Your task to perform on an android device: Go to Reddit.com Image 0: 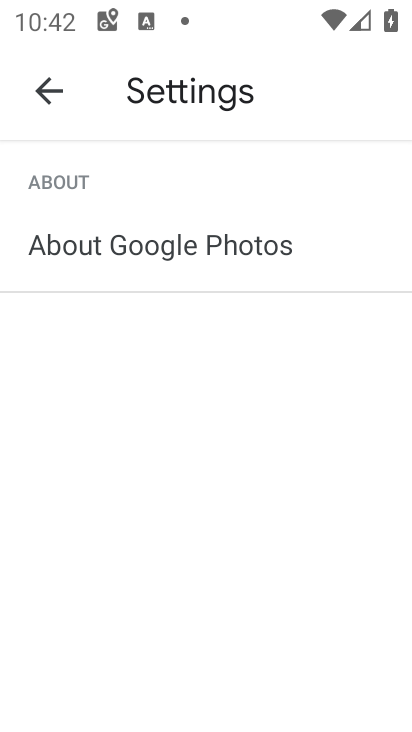
Step 0: press home button
Your task to perform on an android device: Go to Reddit.com Image 1: 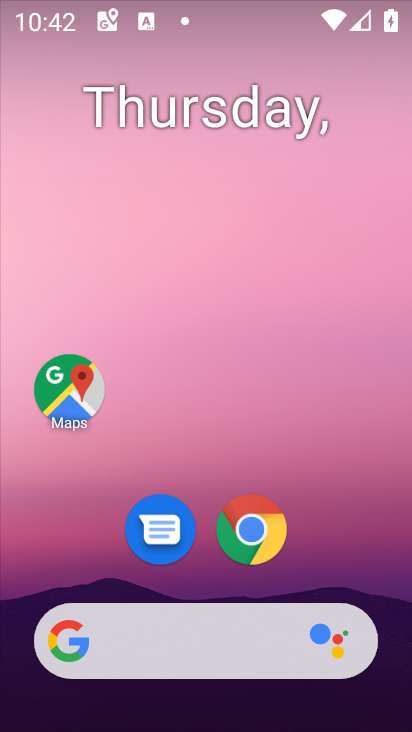
Step 1: click (264, 557)
Your task to perform on an android device: Go to Reddit.com Image 2: 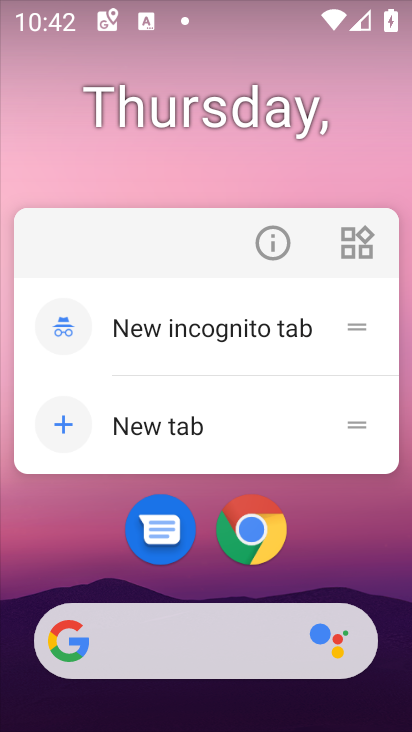
Step 2: click (265, 556)
Your task to perform on an android device: Go to Reddit.com Image 3: 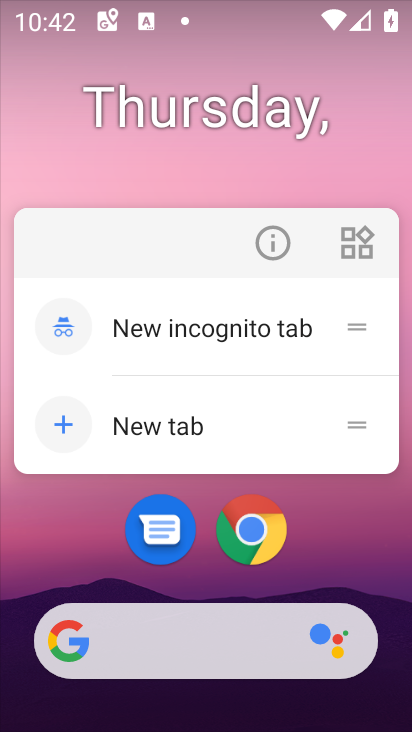
Step 3: click (266, 555)
Your task to perform on an android device: Go to Reddit.com Image 4: 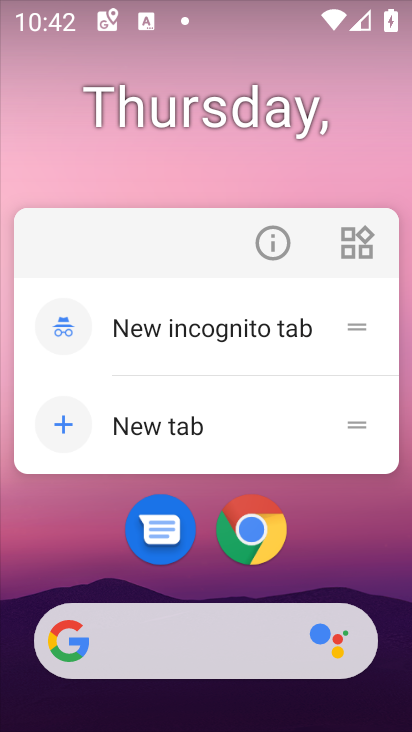
Step 4: click (250, 518)
Your task to perform on an android device: Go to Reddit.com Image 5: 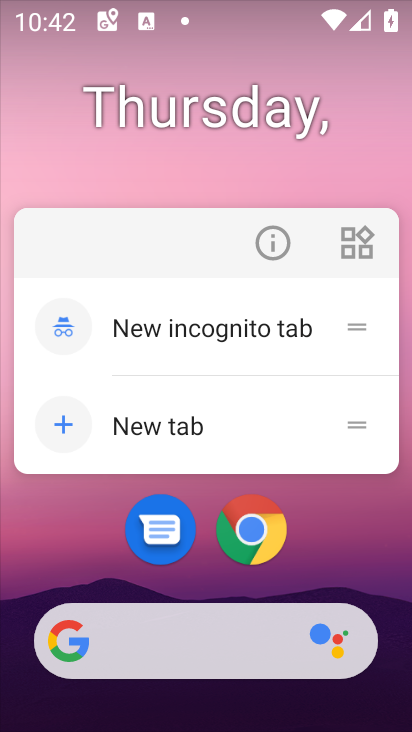
Step 5: click (257, 540)
Your task to perform on an android device: Go to Reddit.com Image 6: 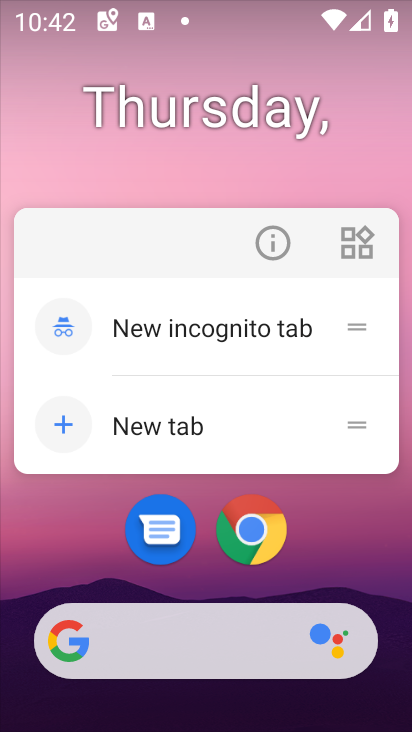
Step 6: click (257, 542)
Your task to perform on an android device: Go to Reddit.com Image 7: 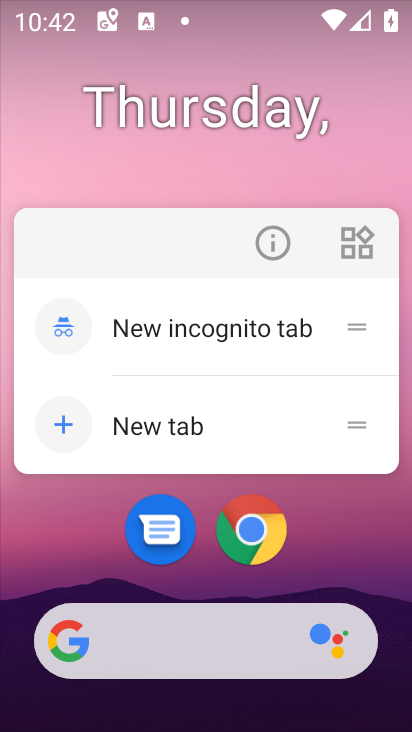
Step 7: click (264, 553)
Your task to perform on an android device: Go to Reddit.com Image 8: 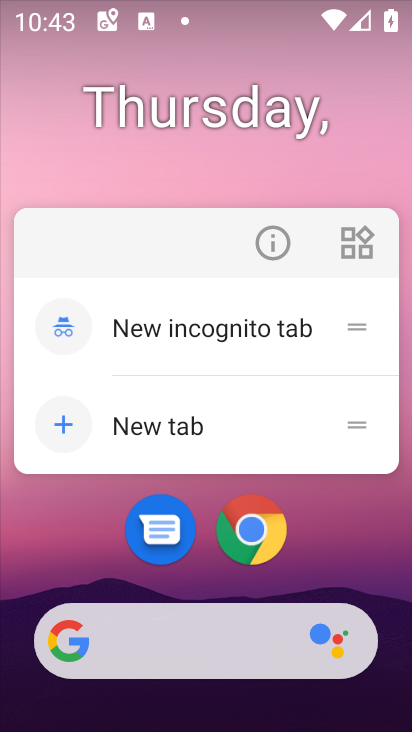
Step 8: click (261, 539)
Your task to perform on an android device: Go to Reddit.com Image 9: 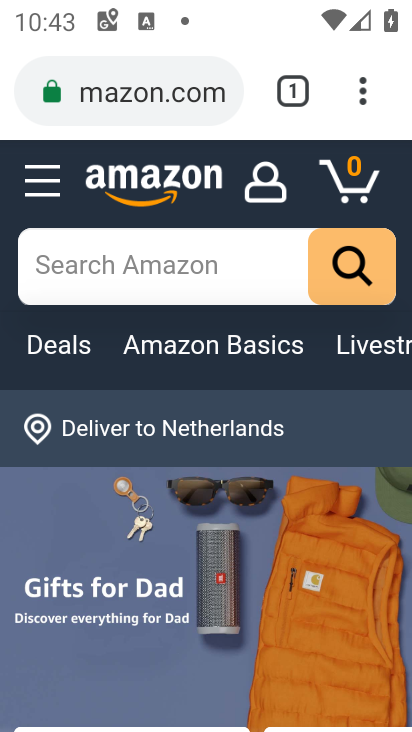
Step 9: click (191, 105)
Your task to perform on an android device: Go to Reddit.com Image 10: 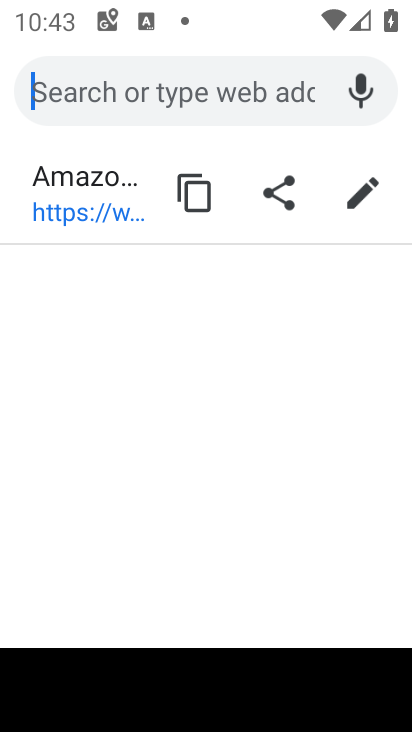
Step 10: type ""
Your task to perform on an android device: Go to Reddit.com Image 11: 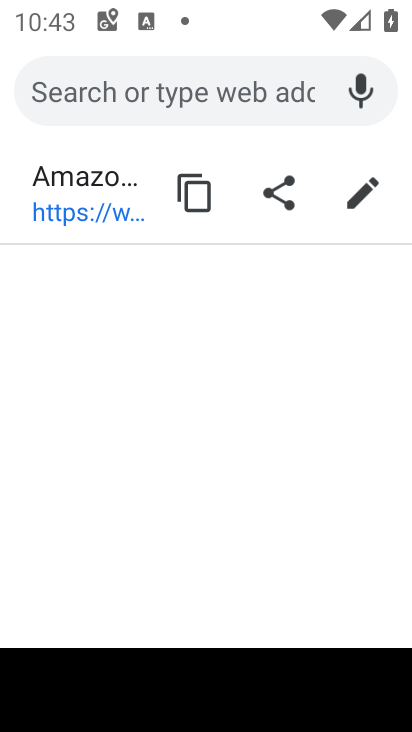
Step 11: type "reddit"
Your task to perform on an android device: Go to Reddit.com Image 12: 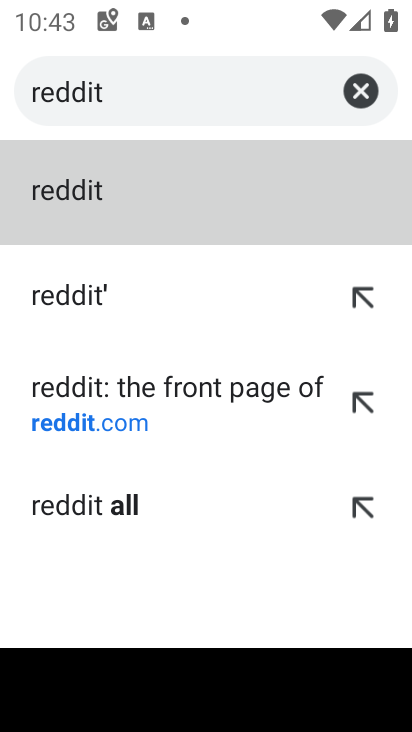
Step 12: click (160, 436)
Your task to perform on an android device: Go to Reddit.com Image 13: 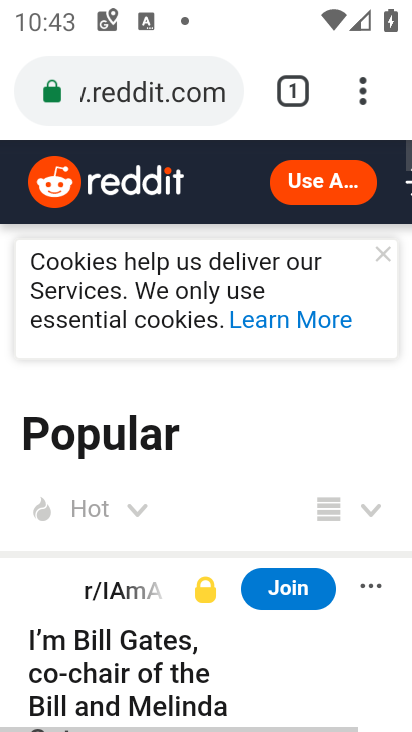
Step 13: task complete